Your task to perform on an android device: Go to battery settings Image 0: 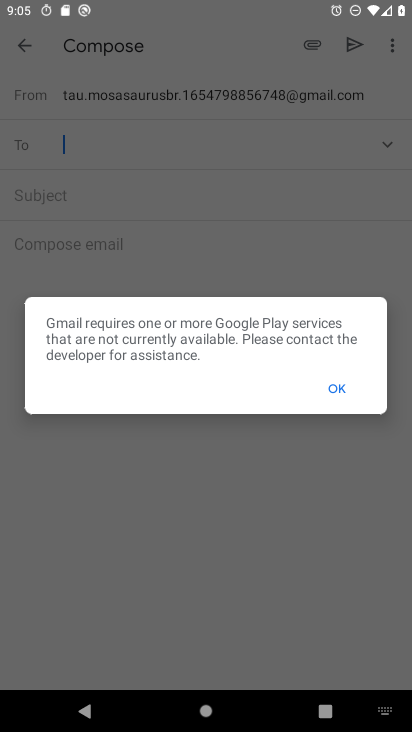
Step 0: press home button
Your task to perform on an android device: Go to battery settings Image 1: 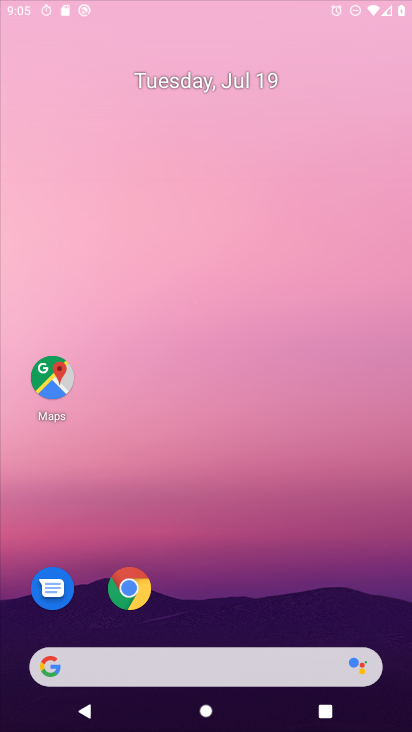
Step 1: press home button
Your task to perform on an android device: Go to battery settings Image 2: 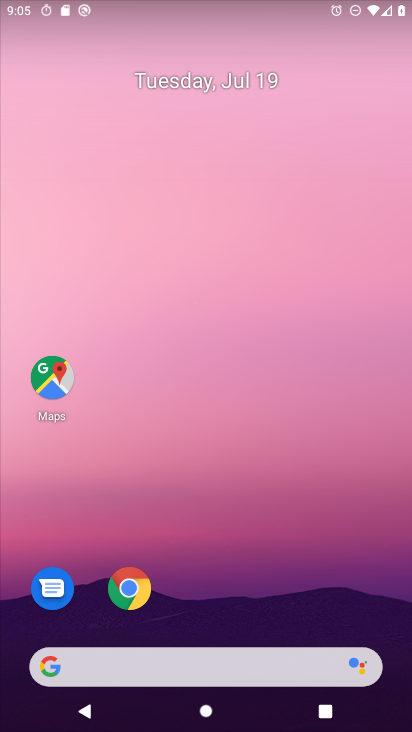
Step 2: drag from (238, 583) to (202, 228)
Your task to perform on an android device: Go to battery settings Image 3: 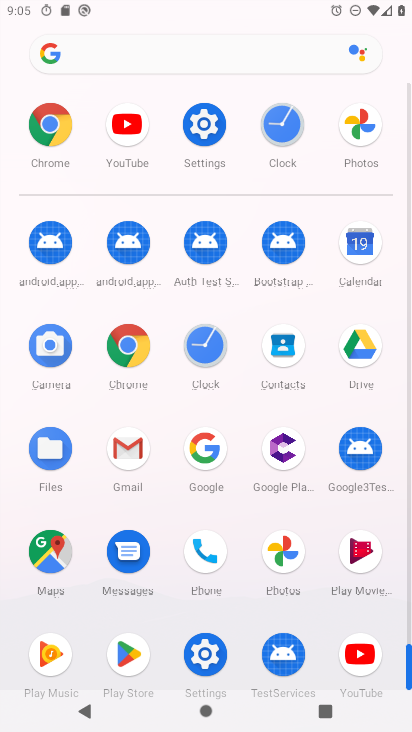
Step 3: click (205, 656)
Your task to perform on an android device: Go to battery settings Image 4: 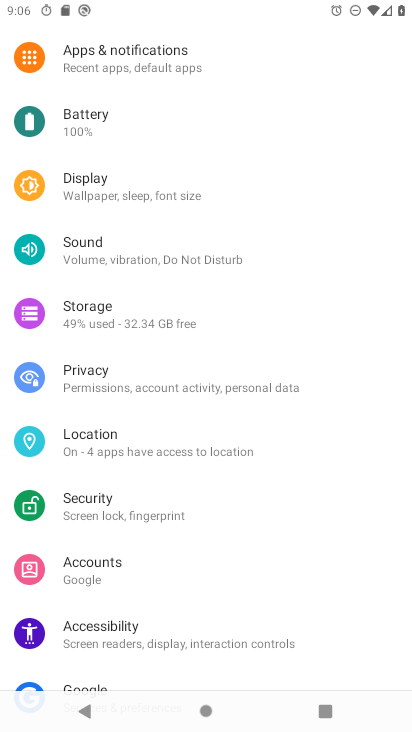
Step 4: click (151, 134)
Your task to perform on an android device: Go to battery settings Image 5: 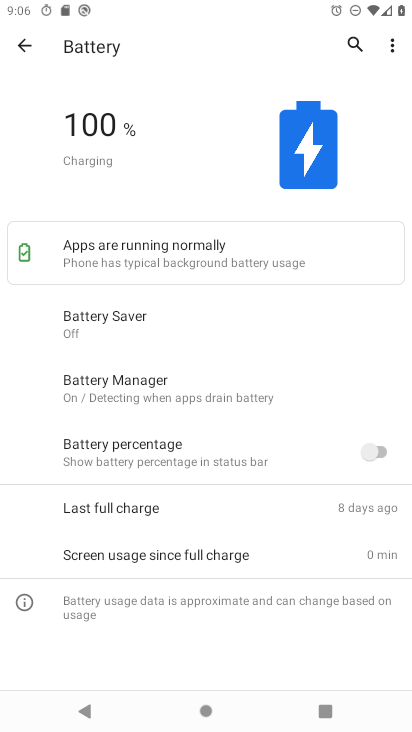
Step 5: task complete